Your task to perform on an android device: turn off improve location accuracy Image 0: 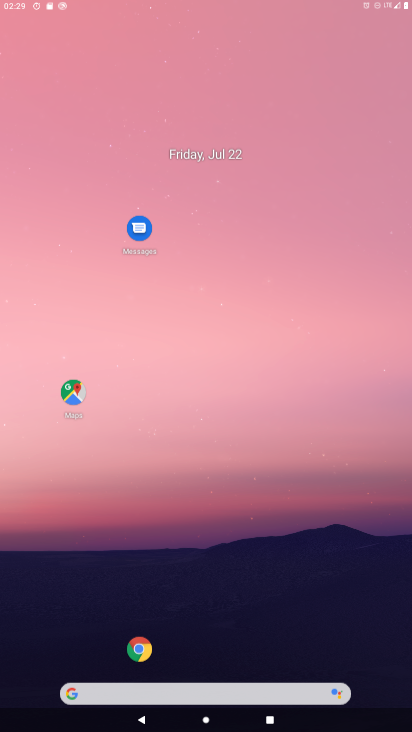
Step 0: click (228, 133)
Your task to perform on an android device: turn off improve location accuracy Image 1: 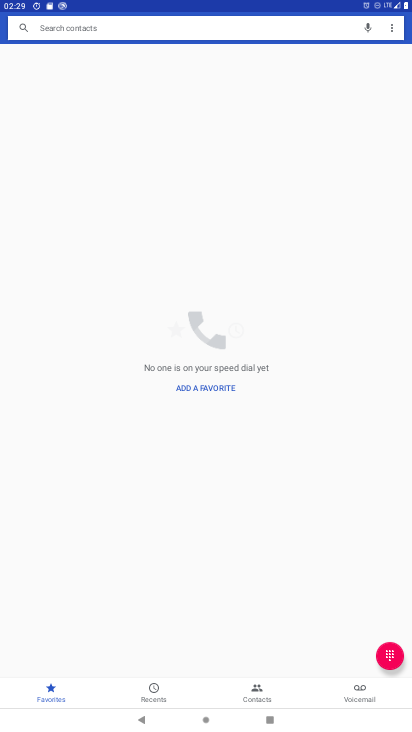
Step 1: press home button
Your task to perform on an android device: turn off improve location accuracy Image 2: 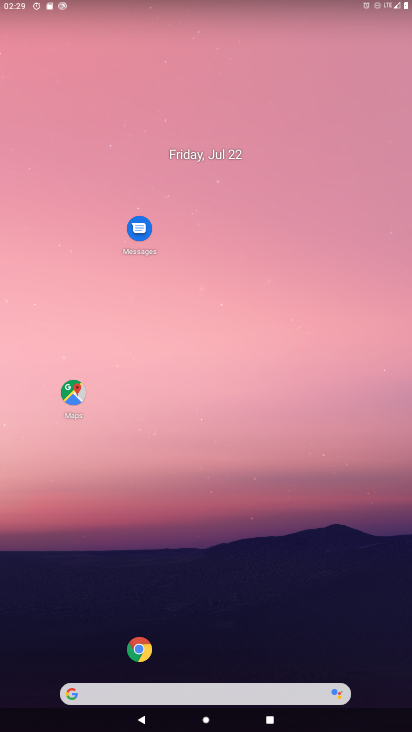
Step 2: drag from (8, 710) to (324, 193)
Your task to perform on an android device: turn off improve location accuracy Image 3: 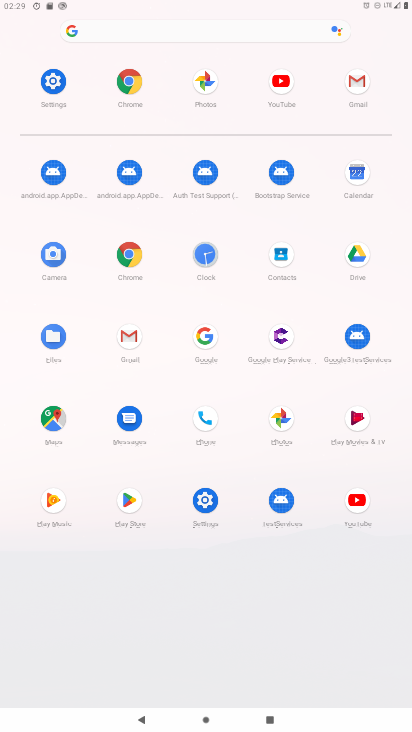
Step 3: click (206, 511)
Your task to perform on an android device: turn off improve location accuracy Image 4: 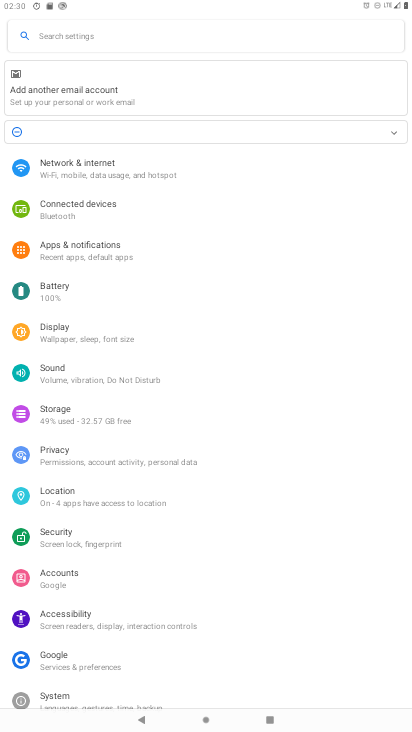
Step 4: click (90, 501)
Your task to perform on an android device: turn off improve location accuracy Image 5: 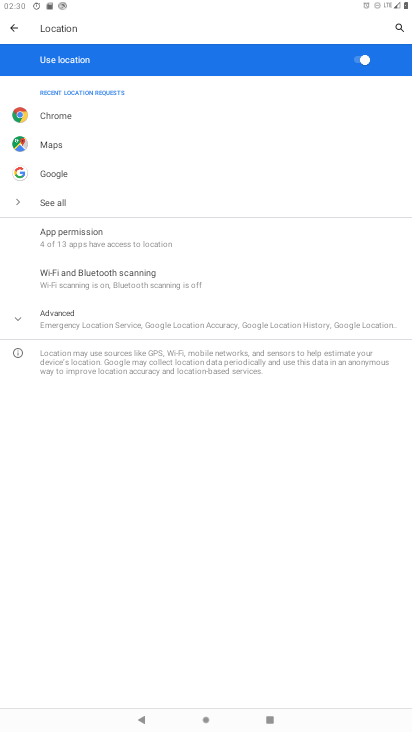
Step 5: click (75, 316)
Your task to perform on an android device: turn off improve location accuracy Image 6: 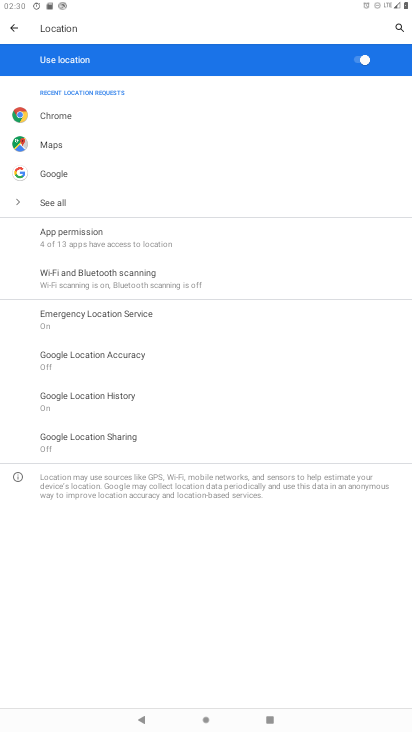
Step 6: task complete